Your task to perform on an android device: delete browsing data in the chrome app Image 0: 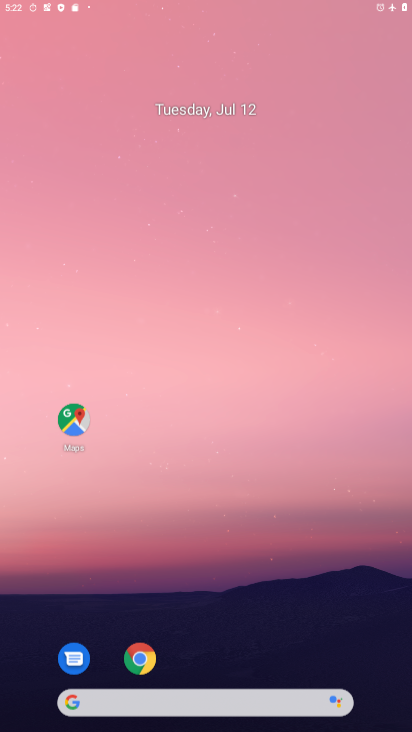
Step 0: press home button
Your task to perform on an android device: delete browsing data in the chrome app Image 1: 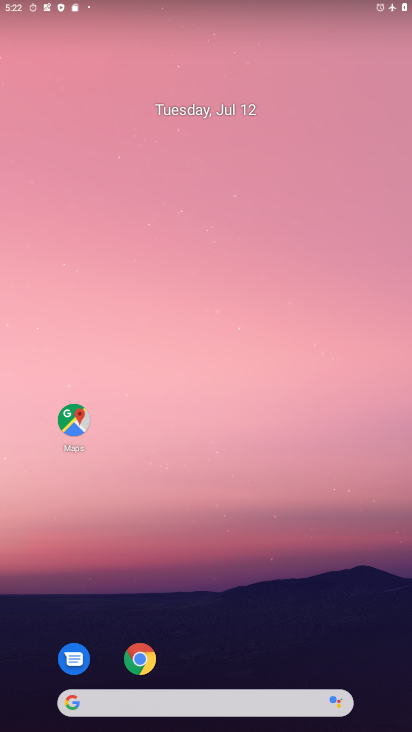
Step 1: click (188, 22)
Your task to perform on an android device: delete browsing data in the chrome app Image 2: 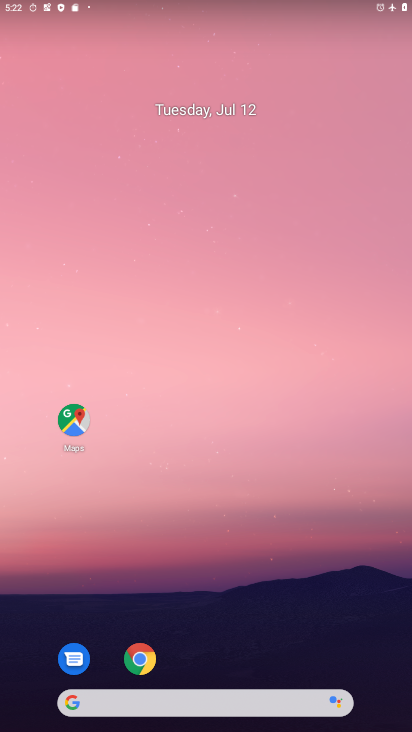
Step 2: drag from (198, 447) to (102, 3)
Your task to perform on an android device: delete browsing data in the chrome app Image 3: 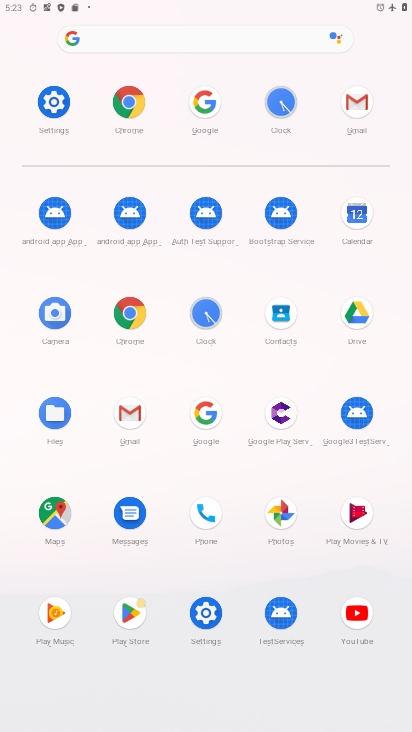
Step 3: click (130, 120)
Your task to perform on an android device: delete browsing data in the chrome app Image 4: 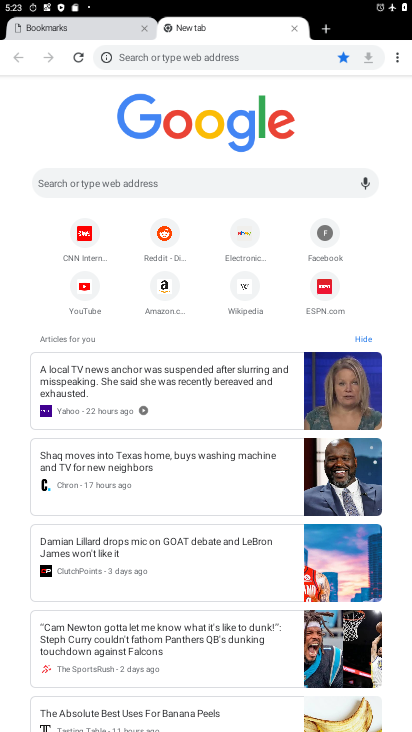
Step 4: click (393, 55)
Your task to perform on an android device: delete browsing data in the chrome app Image 5: 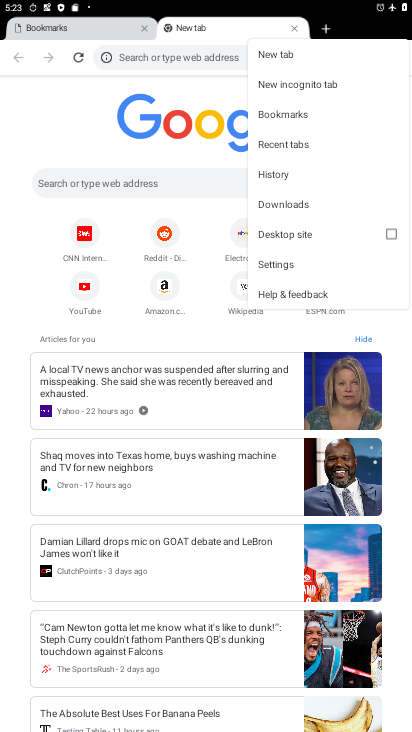
Step 5: click (311, 178)
Your task to perform on an android device: delete browsing data in the chrome app Image 6: 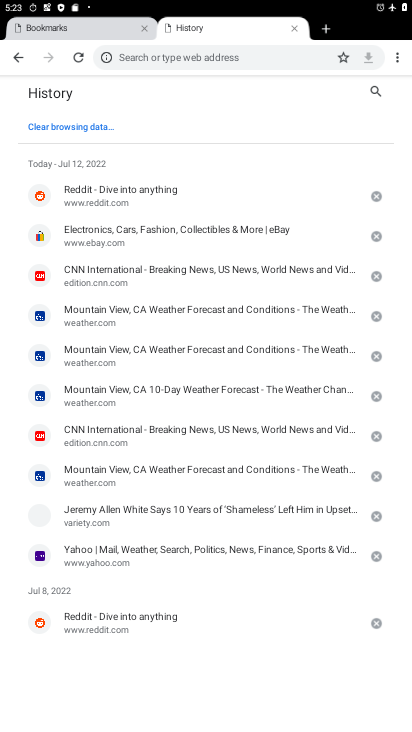
Step 6: click (88, 120)
Your task to perform on an android device: delete browsing data in the chrome app Image 7: 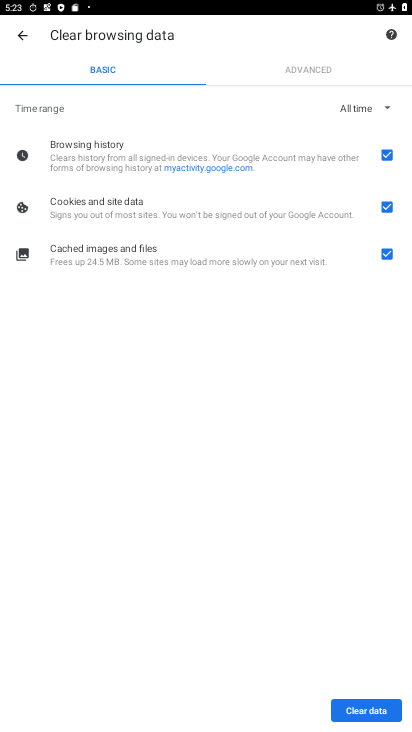
Step 7: click (355, 709)
Your task to perform on an android device: delete browsing data in the chrome app Image 8: 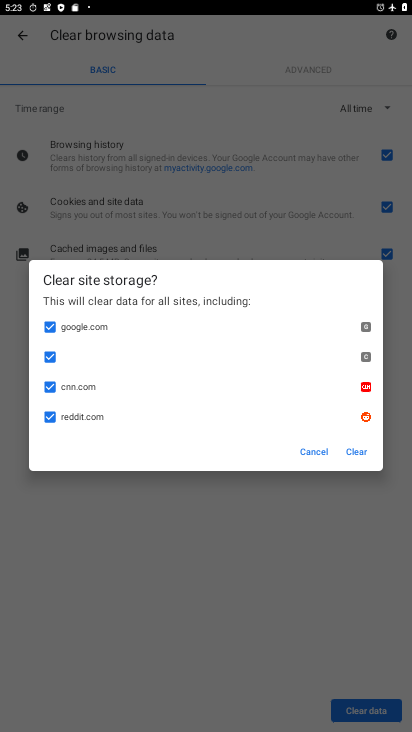
Step 8: click (350, 451)
Your task to perform on an android device: delete browsing data in the chrome app Image 9: 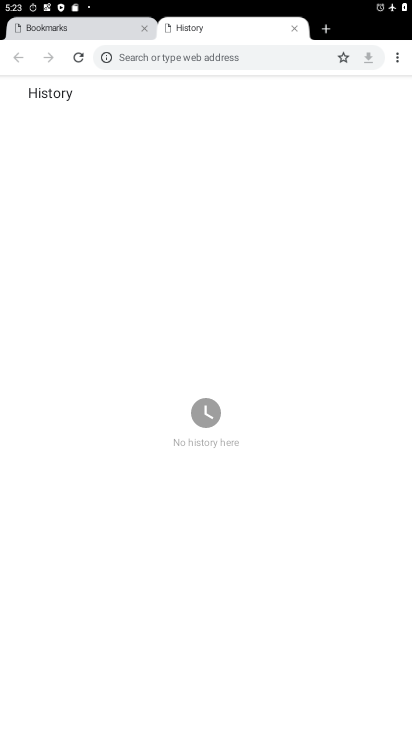
Step 9: task complete